Your task to perform on an android device: open chrome privacy settings Image 0: 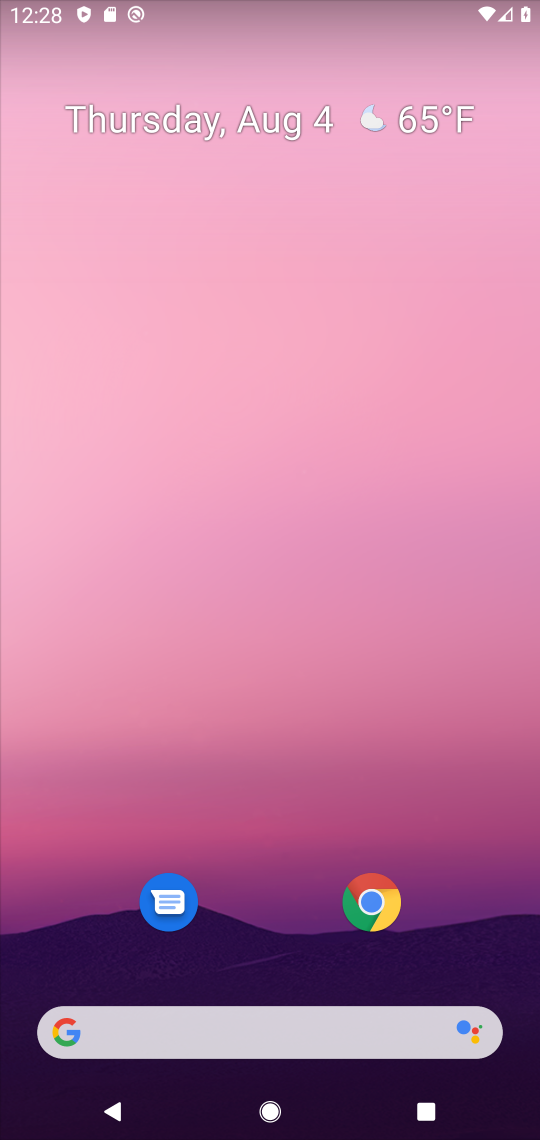
Step 0: click (372, 905)
Your task to perform on an android device: open chrome privacy settings Image 1: 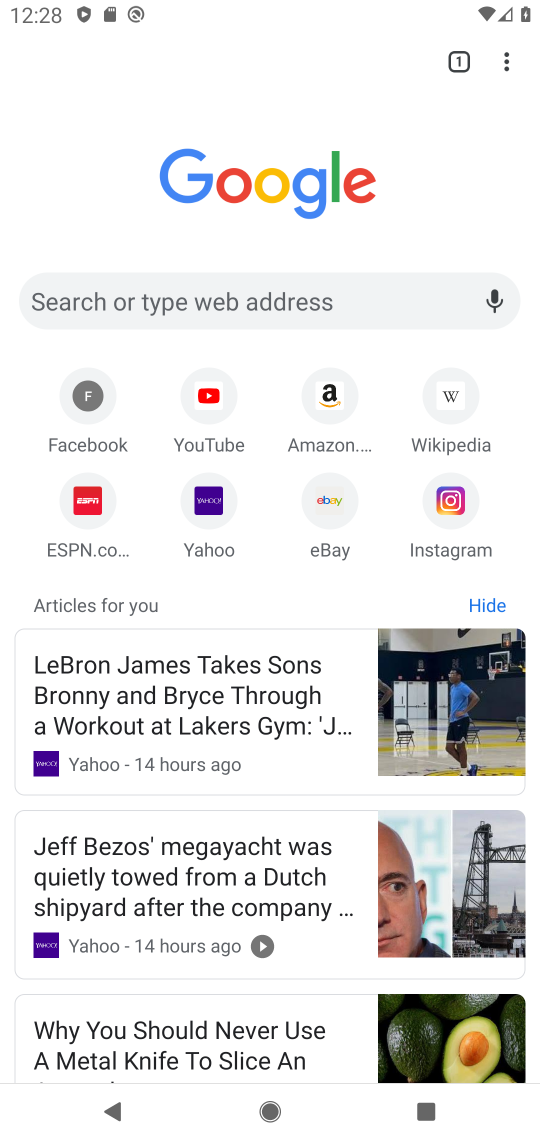
Step 1: click (498, 71)
Your task to perform on an android device: open chrome privacy settings Image 2: 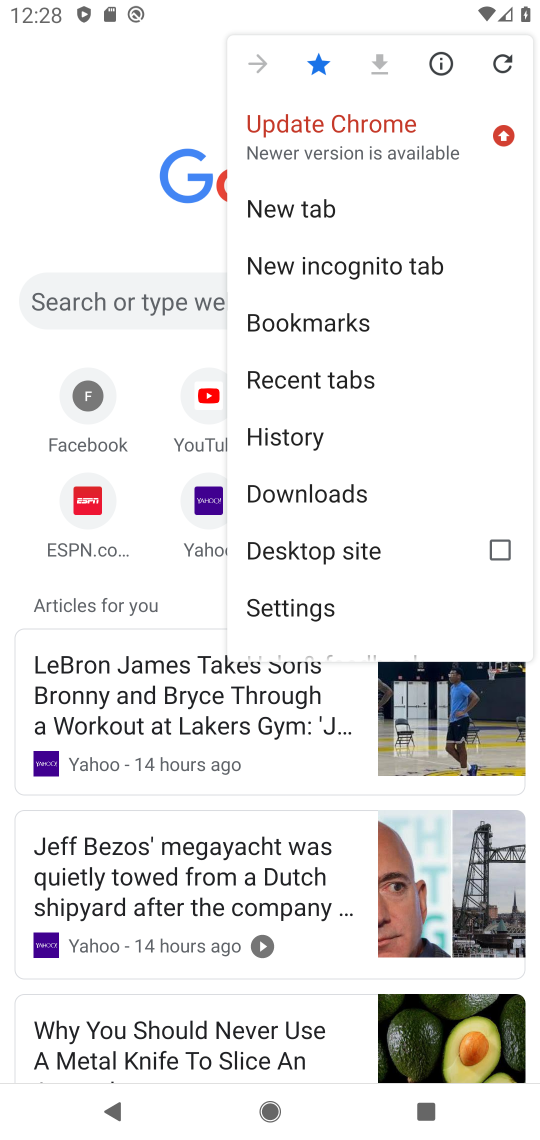
Step 2: click (298, 609)
Your task to perform on an android device: open chrome privacy settings Image 3: 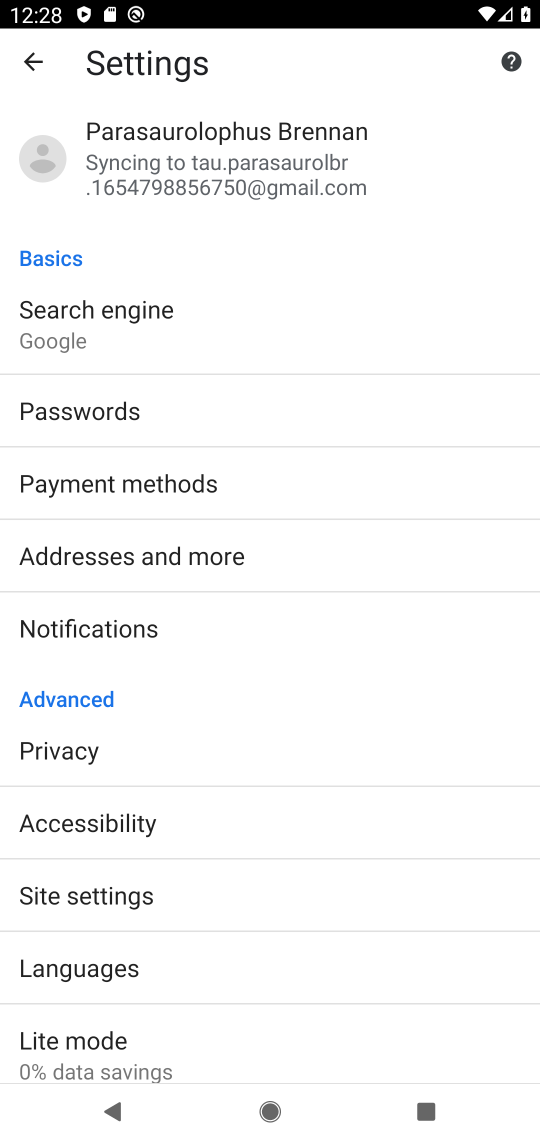
Step 3: click (61, 748)
Your task to perform on an android device: open chrome privacy settings Image 4: 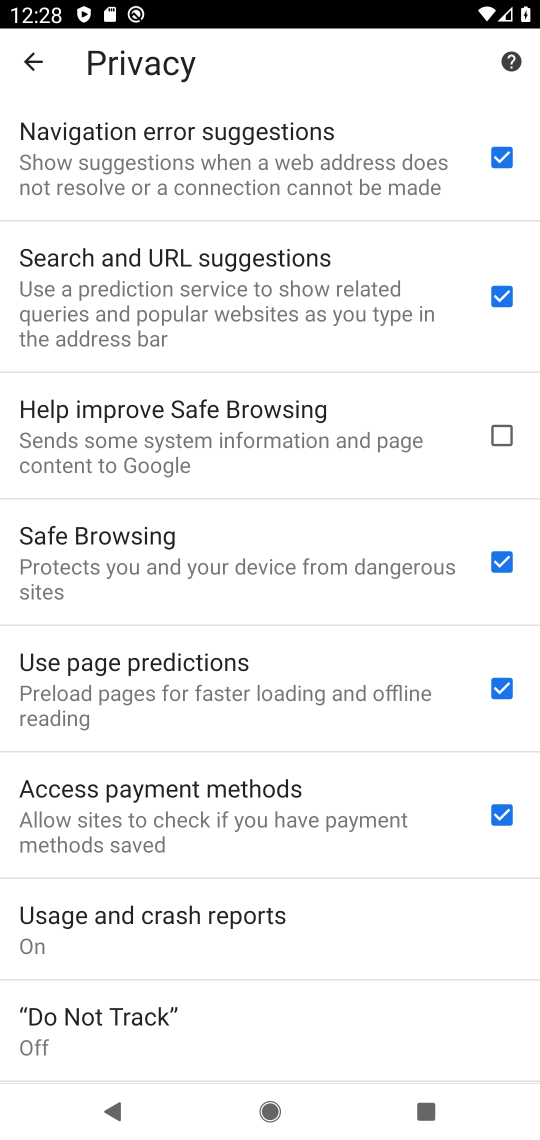
Step 4: task complete